Your task to perform on an android device: Open Google Maps and go to "Timeline" Image 0: 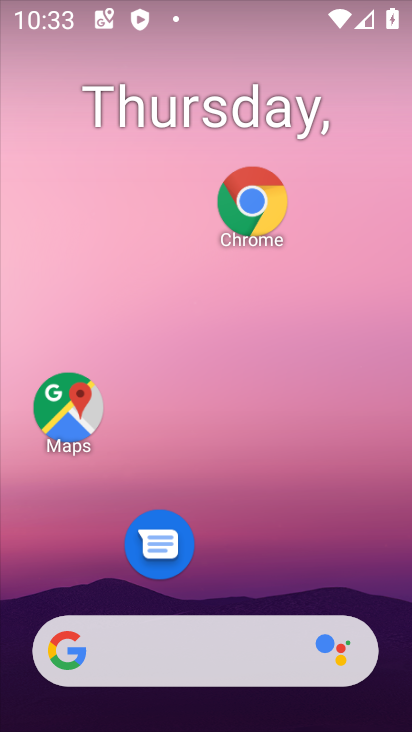
Step 0: click (63, 404)
Your task to perform on an android device: Open Google Maps and go to "Timeline" Image 1: 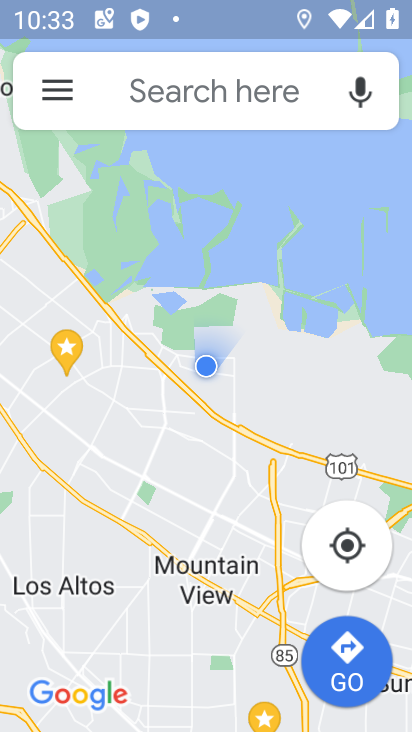
Step 1: click (55, 91)
Your task to perform on an android device: Open Google Maps and go to "Timeline" Image 2: 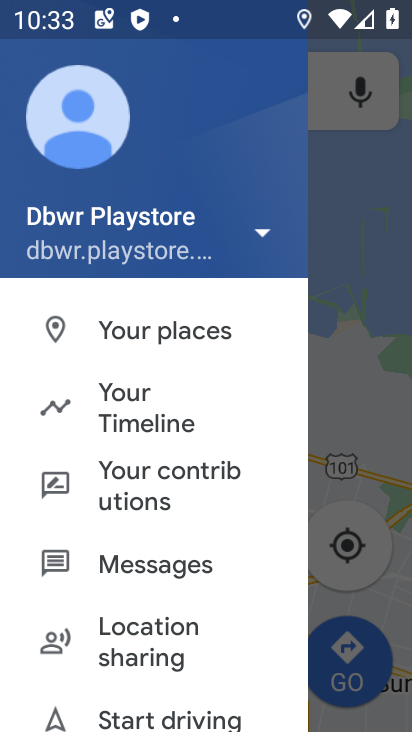
Step 2: click (83, 392)
Your task to perform on an android device: Open Google Maps and go to "Timeline" Image 3: 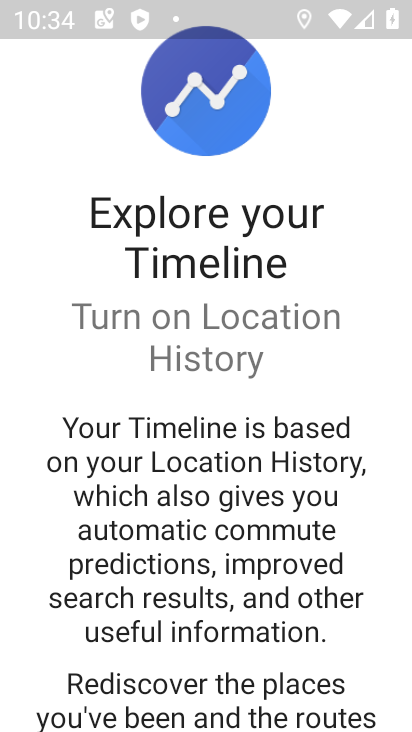
Step 3: drag from (207, 645) to (243, 160)
Your task to perform on an android device: Open Google Maps and go to "Timeline" Image 4: 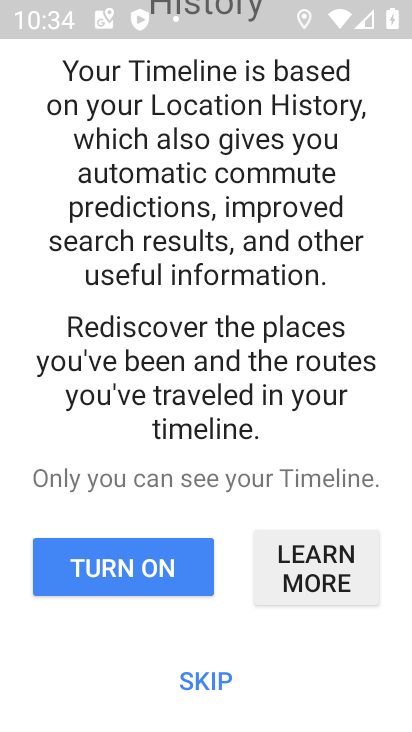
Step 4: click (138, 572)
Your task to perform on an android device: Open Google Maps and go to "Timeline" Image 5: 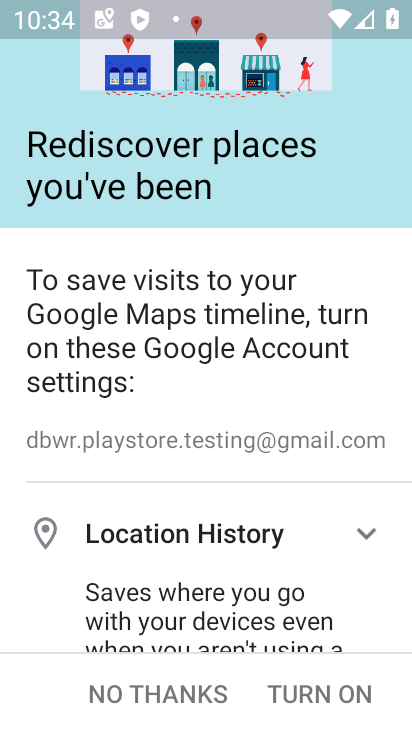
Step 5: click (324, 694)
Your task to perform on an android device: Open Google Maps and go to "Timeline" Image 6: 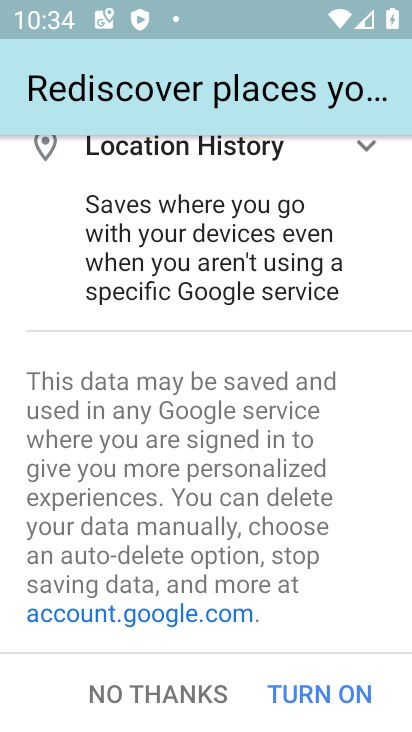
Step 6: click (326, 701)
Your task to perform on an android device: Open Google Maps and go to "Timeline" Image 7: 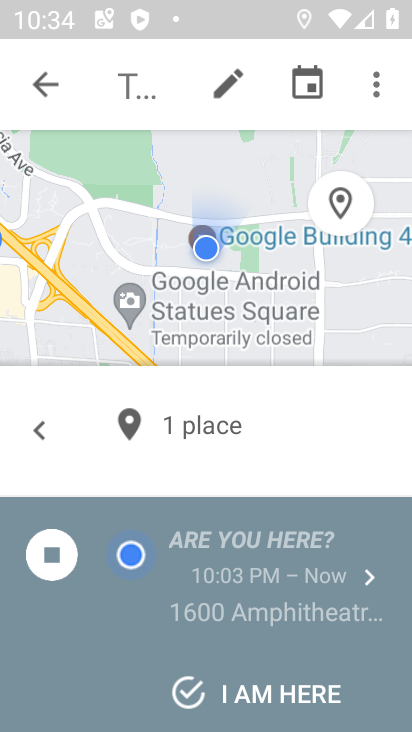
Step 7: click (367, 78)
Your task to perform on an android device: Open Google Maps and go to "Timeline" Image 8: 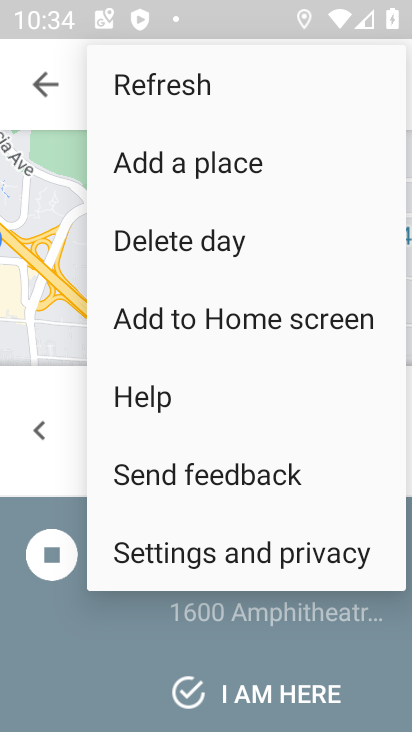
Step 8: click (254, 558)
Your task to perform on an android device: Open Google Maps and go to "Timeline" Image 9: 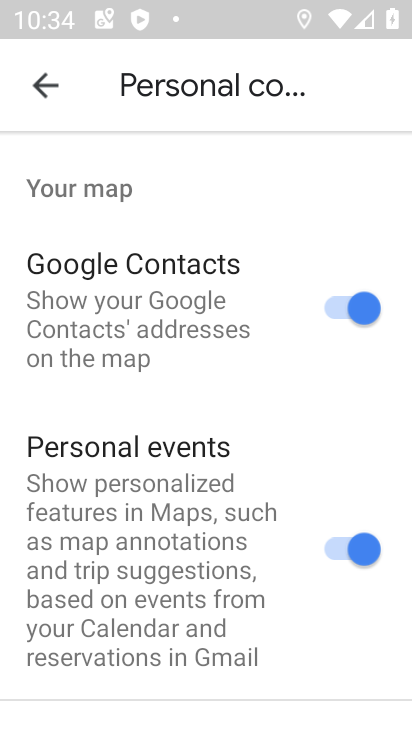
Step 9: drag from (243, 622) to (257, 172)
Your task to perform on an android device: Open Google Maps and go to "Timeline" Image 10: 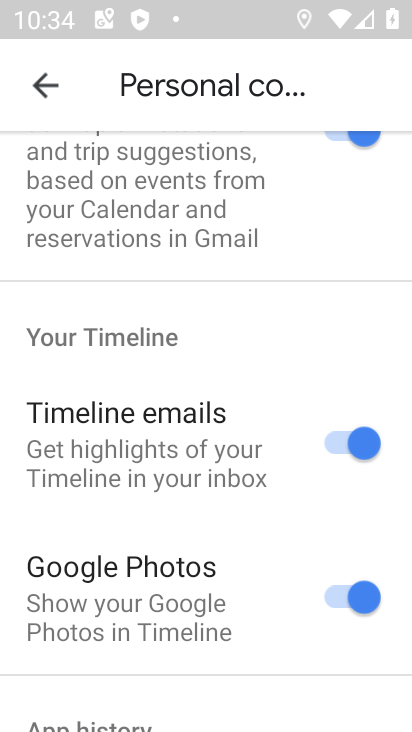
Step 10: drag from (241, 637) to (239, 200)
Your task to perform on an android device: Open Google Maps and go to "Timeline" Image 11: 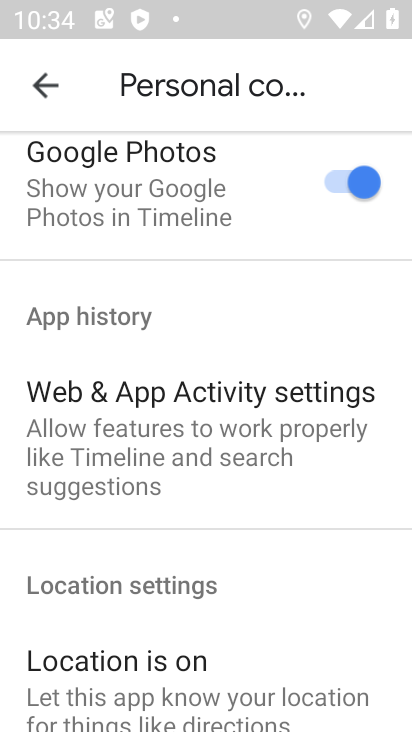
Step 11: drag from (221, 663) to (253, 177)
Your task to perform on an android device: Open Google Maps and go to "Timeline" Image 12: 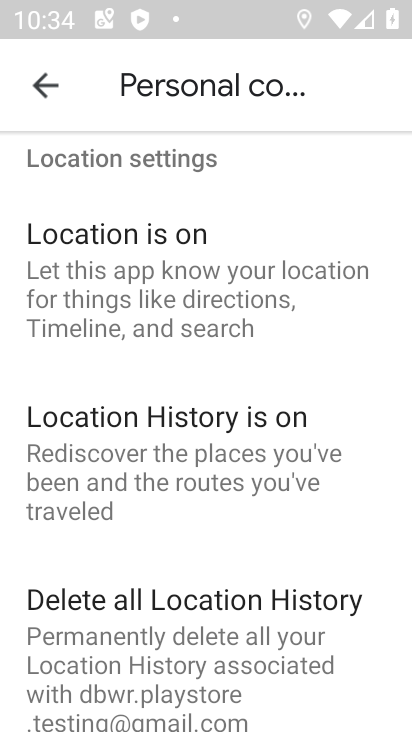
Step 12: click (210, 627)
Your task to perform on an android device: Open Google Maps and go to "Timeline" Image 13: 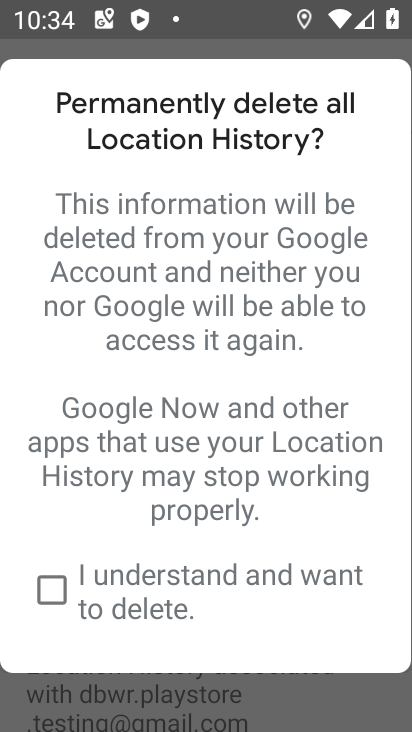
Step 13: click (57, 586)
Your task to perform on an android device: Open Google Maps and go to "Timeline" Image 14: 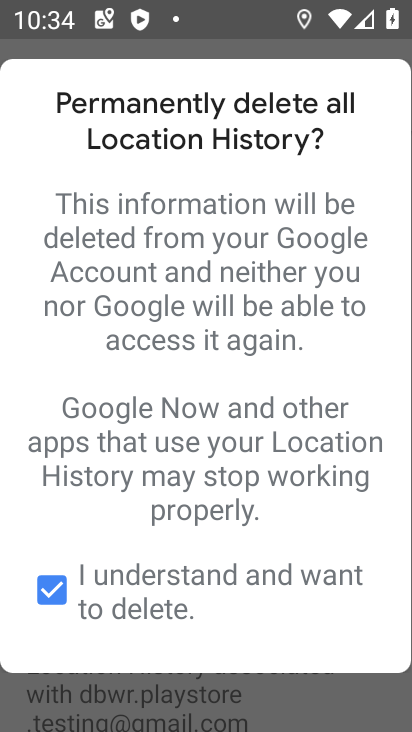
Step 14: drag from (166, 620) to (202, 213)
Your task to perform on an android device: Open Google Maps and go to "Timeline" Image 15: 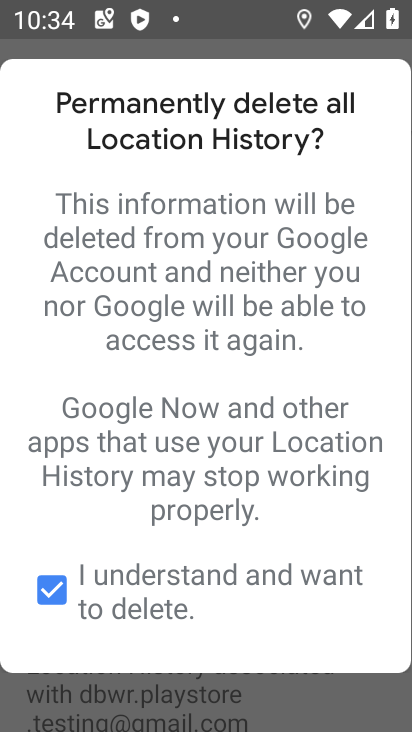
Step 15: drag from (204, 630) to (236, 164)
Your task to perform on an android device: Open Google Maps and go to "Timeline" Image 16: 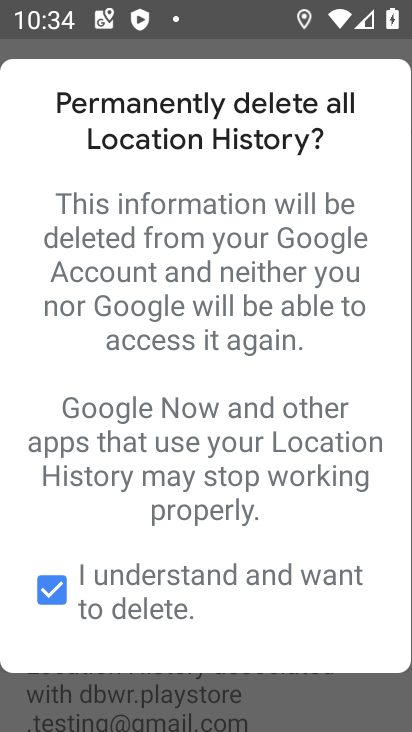
Step 16: drag from (202, 628) to (191, 162)
Your task to perform on an android device: Open Google Maps and go to "Timeline" Image 17: 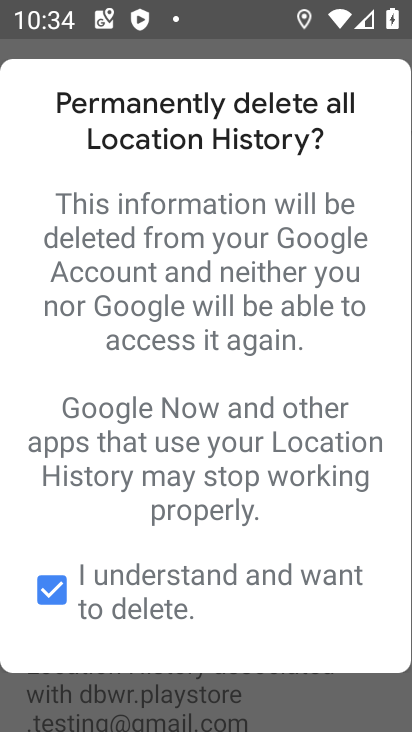
Step 17: click (271, 636)
Your task to perform on an android device: Open Google Maps and go to "Timeline" Image 18: 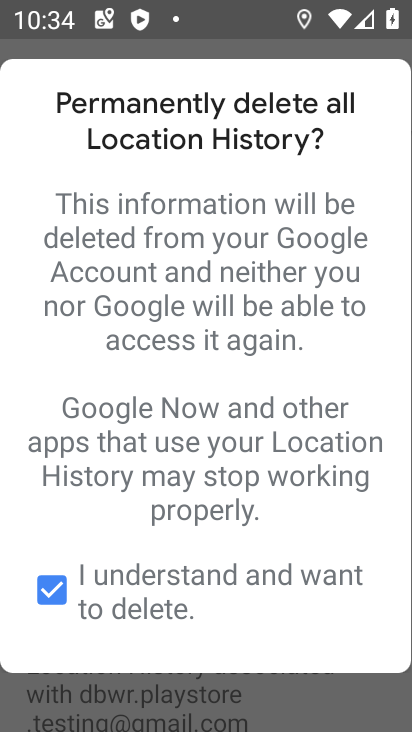
Step 18: drag from (321, 598) to (312, 140)
Your task to perform on an android device: Open Google Maps and go to "Timeline" Image 19: 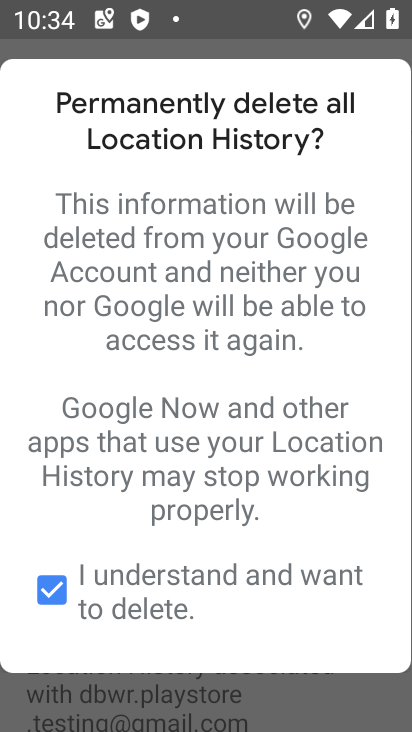
Step 19: click (205, 557)
Your task to perform on an android device: Open Google Maps and go to "Timeline" Image 20: 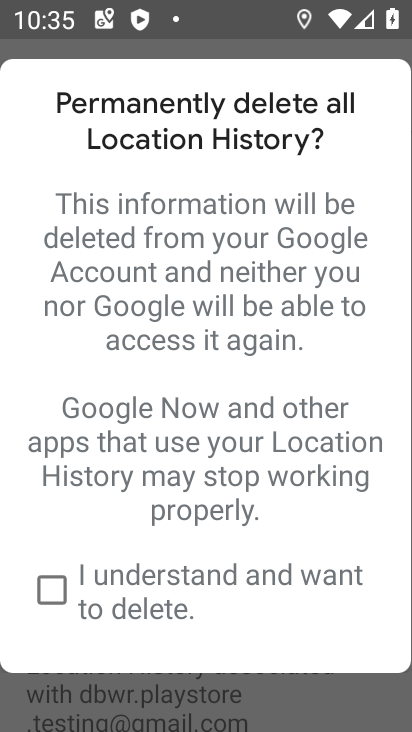
Step 20: drag from (191, 603) to (193, 299)
Your task to perform on an android device: Open Google Maps and go to "Timeline" Image 21: 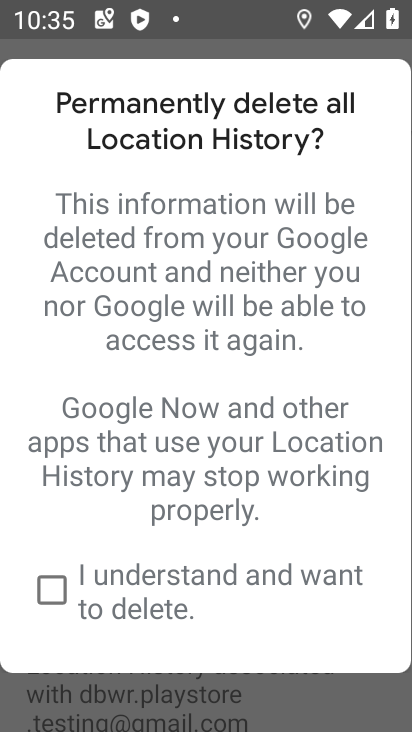
Step 21: click (33, 598)
Your task to perform on an android device: Open Google Maps and go to "Timeline" Image 22: 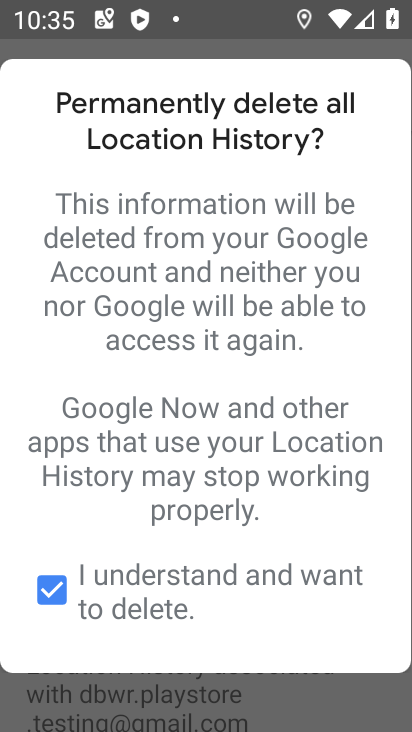
Step 22: drag from (124, 532) to (142, 101)
Your task to perform on an android device: Open Google Maps and go to "Timeline" Image 23: 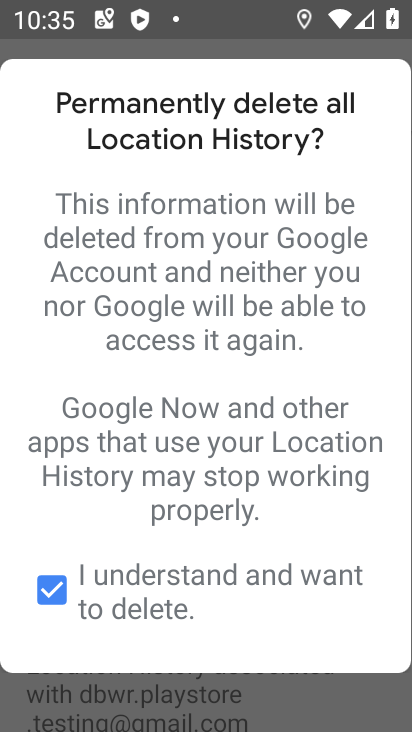
Step 23: drag from (286, 605) to (292, 304)
Your task to perform on an android device: Open Google Maps and go to "Timeline" Image 24: 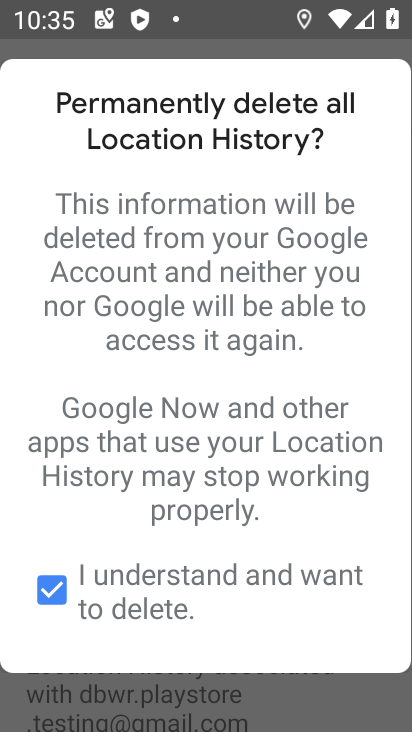
Step 24: click (218, 650)
Your task to perform on an android device: Open Google Maps and go to "Timeline" Image 25: 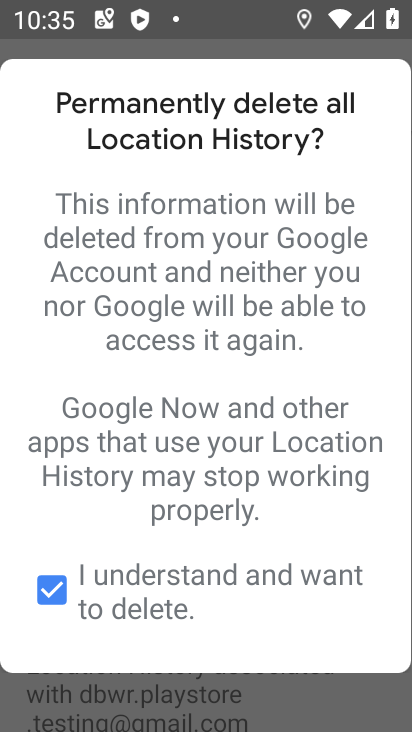
Step 25: click (383, 663)
Your task to perform on an android device: Open Google Maps and go to "Timeline" Image 26: 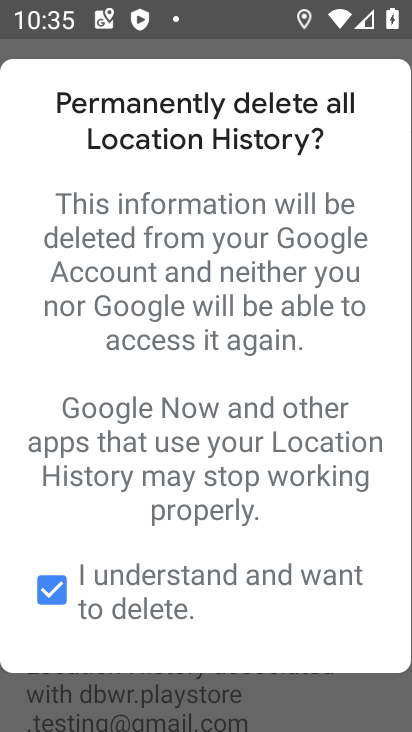
Step 26: click (283, 706)
Your task to perform on an android device: Open Google Maps and go to "Timeline" Image 27: 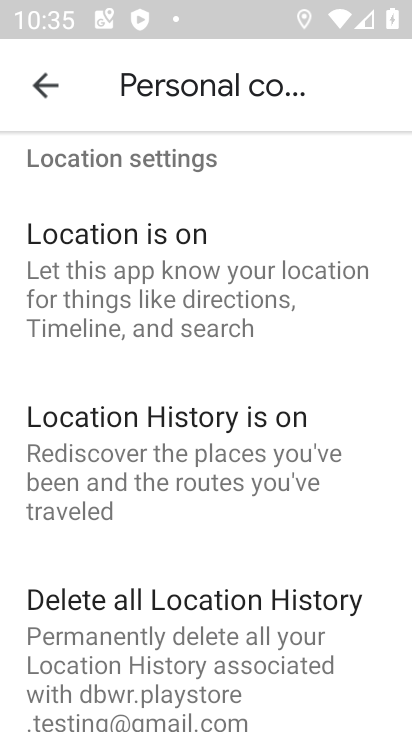
Step 27: drag from (237, 646) to (259, 176)
Your task to perform on an android device: Open Google Maps and go to "Timeline" Image 28: 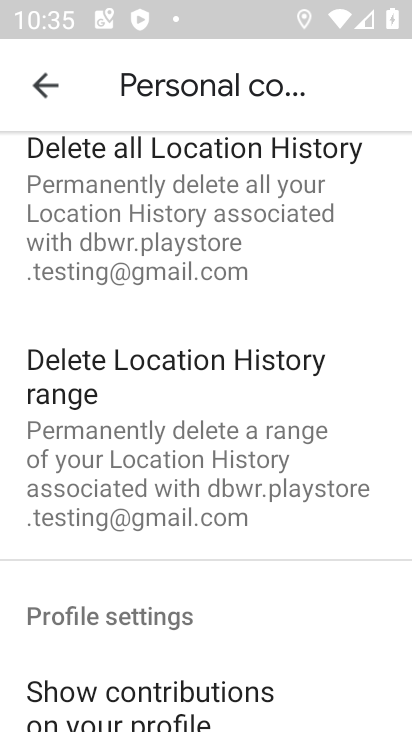
Step 28: click (130, 407)
Your task to perform on an android device: Open Google Maps and go to "Timeline" Image 29: 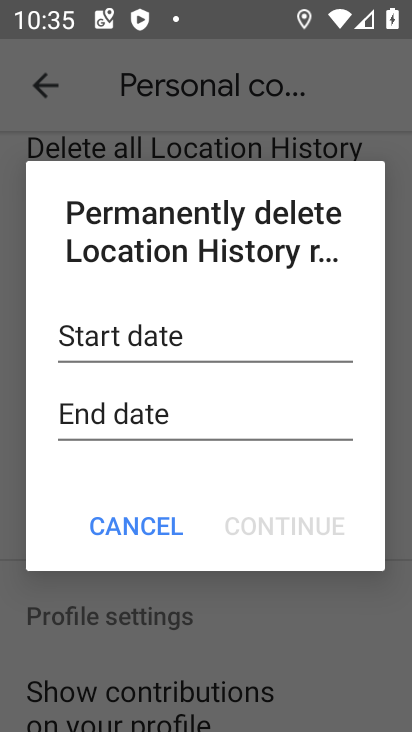
Step 29: click (149, 530)
Your task to perform on an android device: Open Google Maps and go to "Timeline" Image 30: 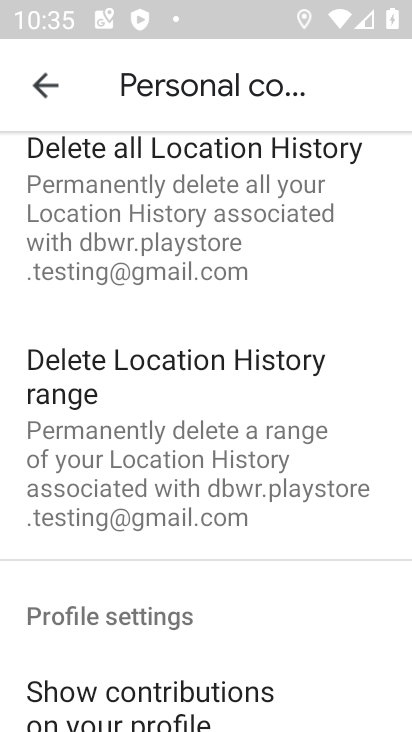
Step 30: click (154, 217)
Your task to perform on an android device: Open Google Maps and go to "Timeline" Image 31: 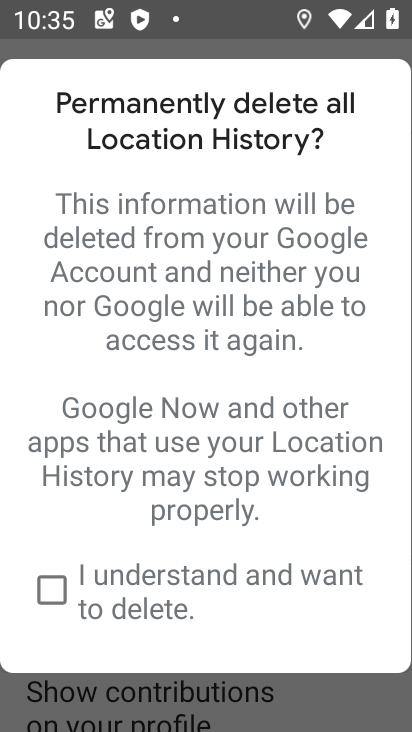
Step 31: click (50, 582)
Your task to perform on an android device: Open Google Maps and go to "Timeline" Image 32: 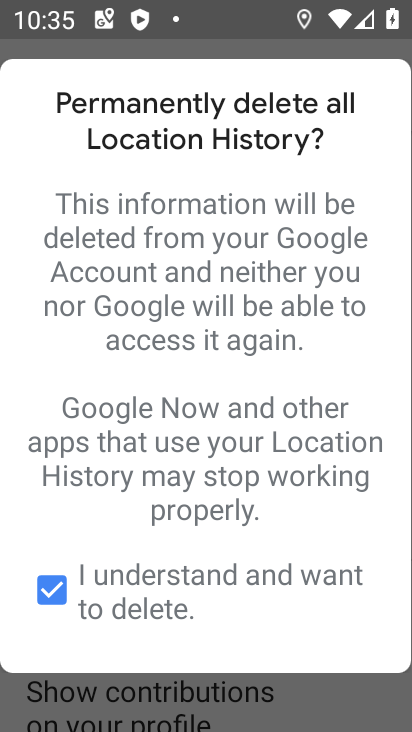
Step 32: task complete